Your task to perform on an android device: change notification settings in the gmail app Image 0: 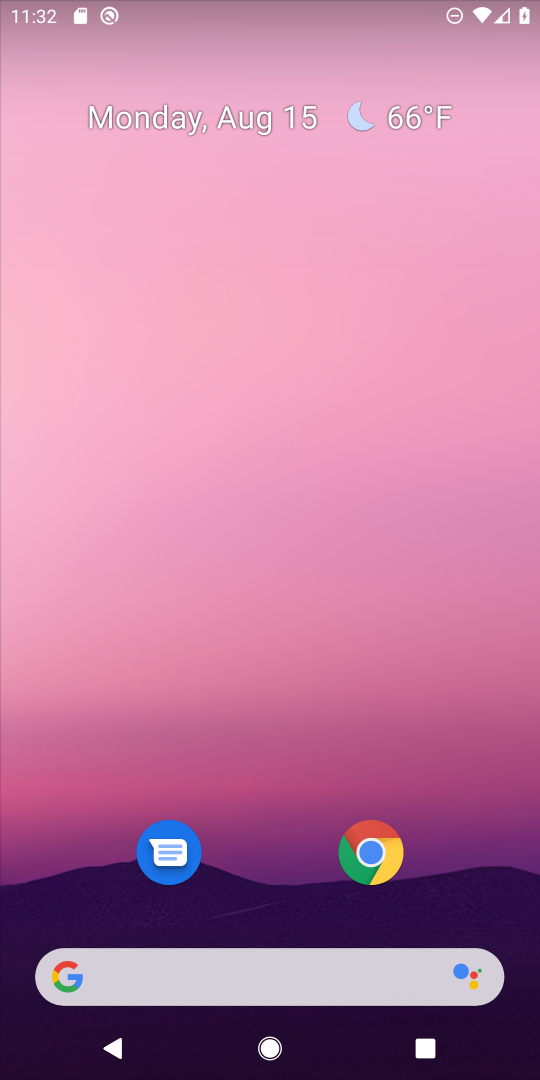
Step 0: drag from (258, 887) to (327, 105)
Your task to perform on an android device: change notification settings in the gmail app Image 1: 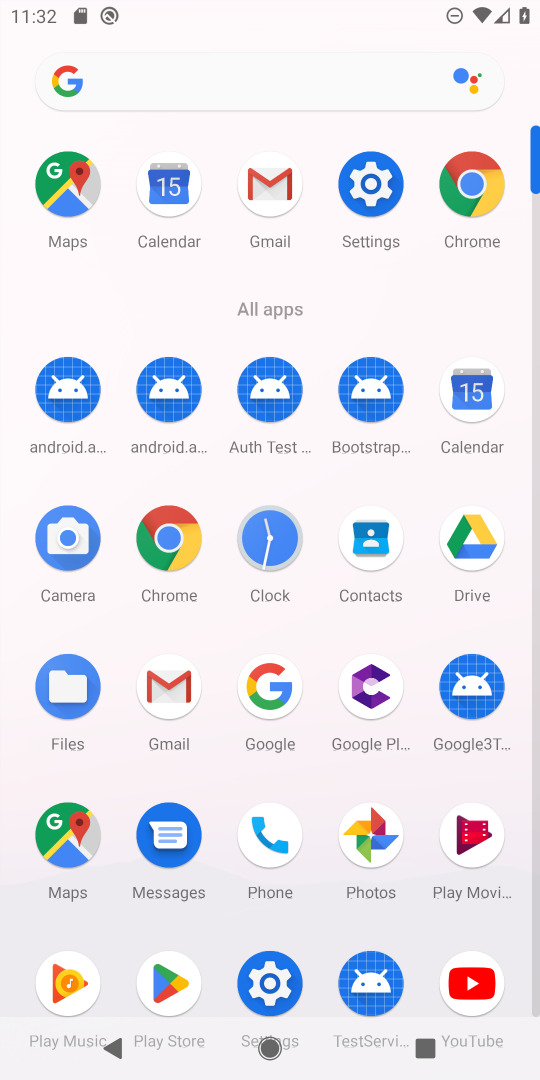
Step 1: click (274, 183)
Your task to perform on an android device: change notification settings in the gmail app Image 2: 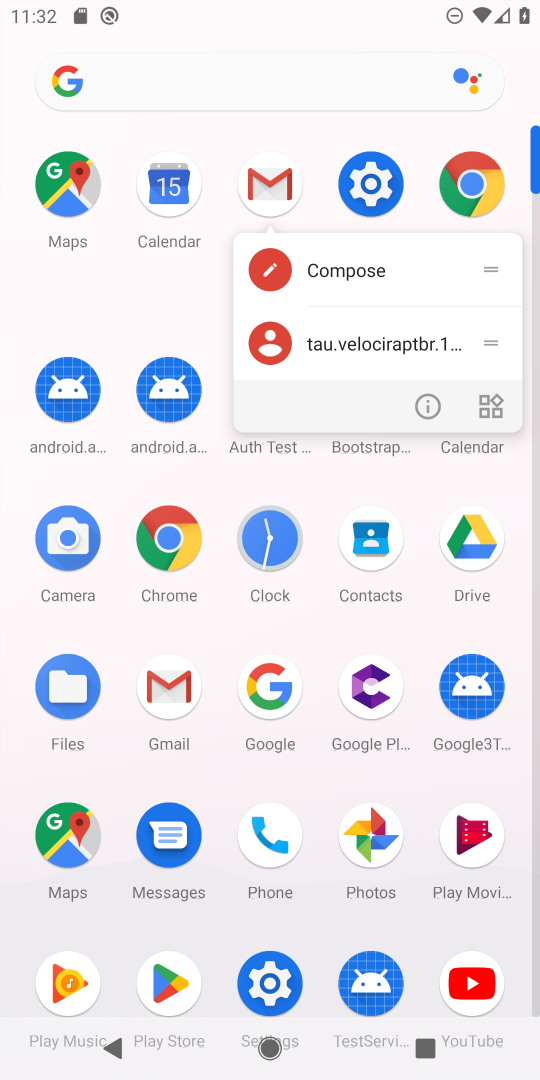
Step 2: click (431, 397)
Your task to perform on an android device: change notification settings in the gmail app Image 3: 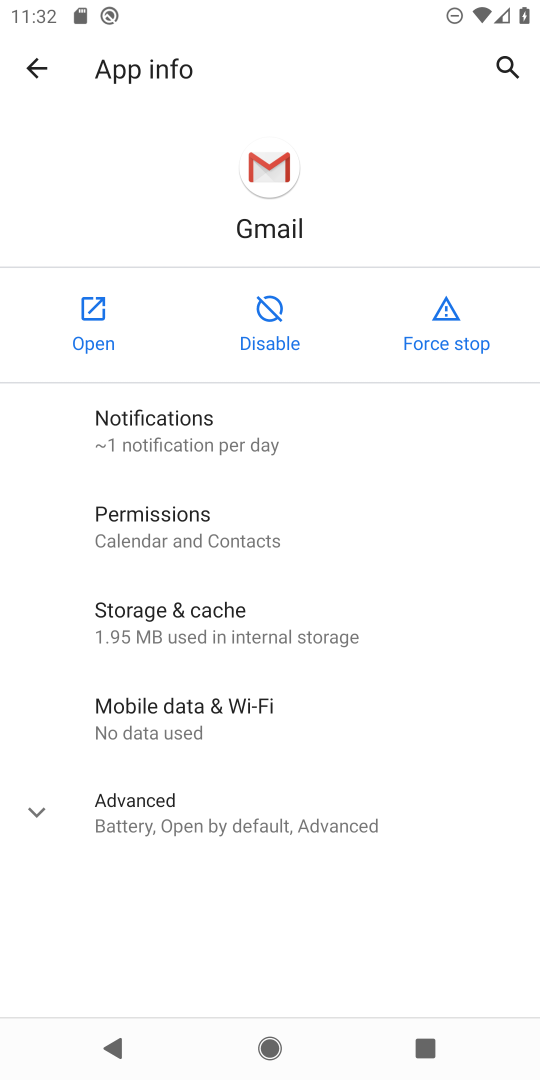
Step 3: click (266, 438)
Your task to perform on an android device: change notification settings in the gmail app Image 4: 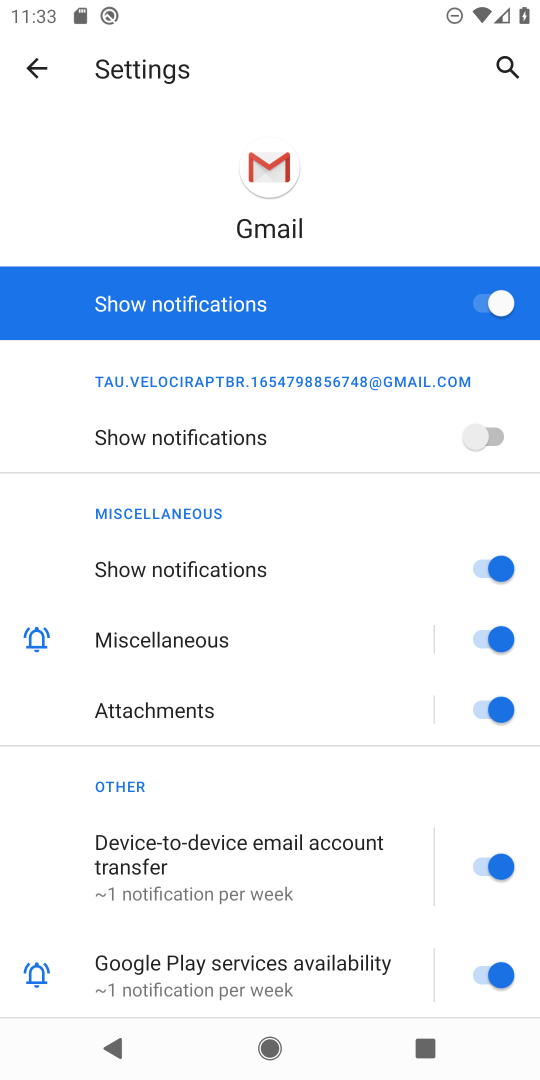
Step 4: click (499, 562)
Your task to perform on an android device: change notification settings in the gmail app Image 5: 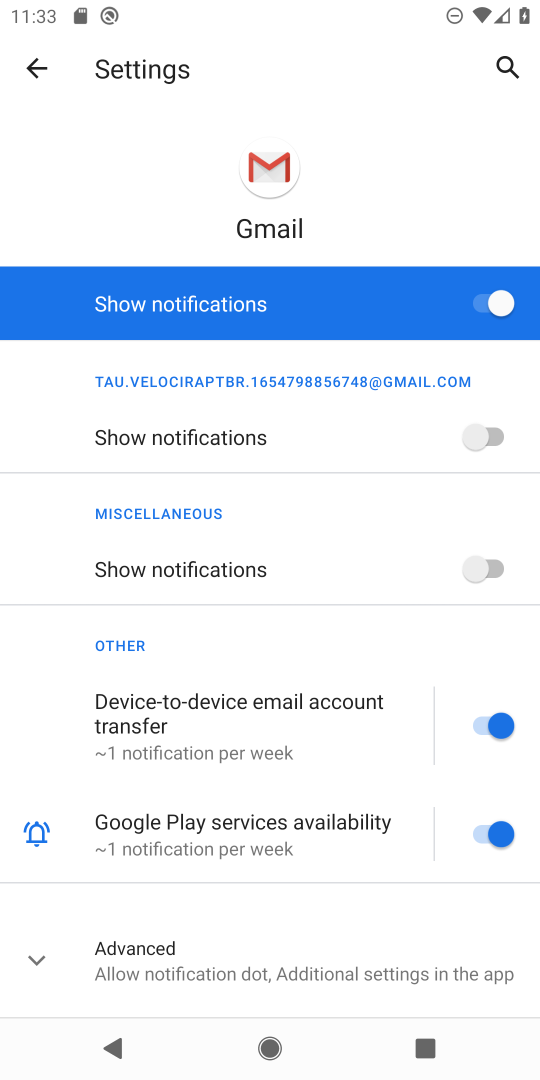
Step 5: task complete